Your task to perform on an android device: What's the news in Chile? Image 0: 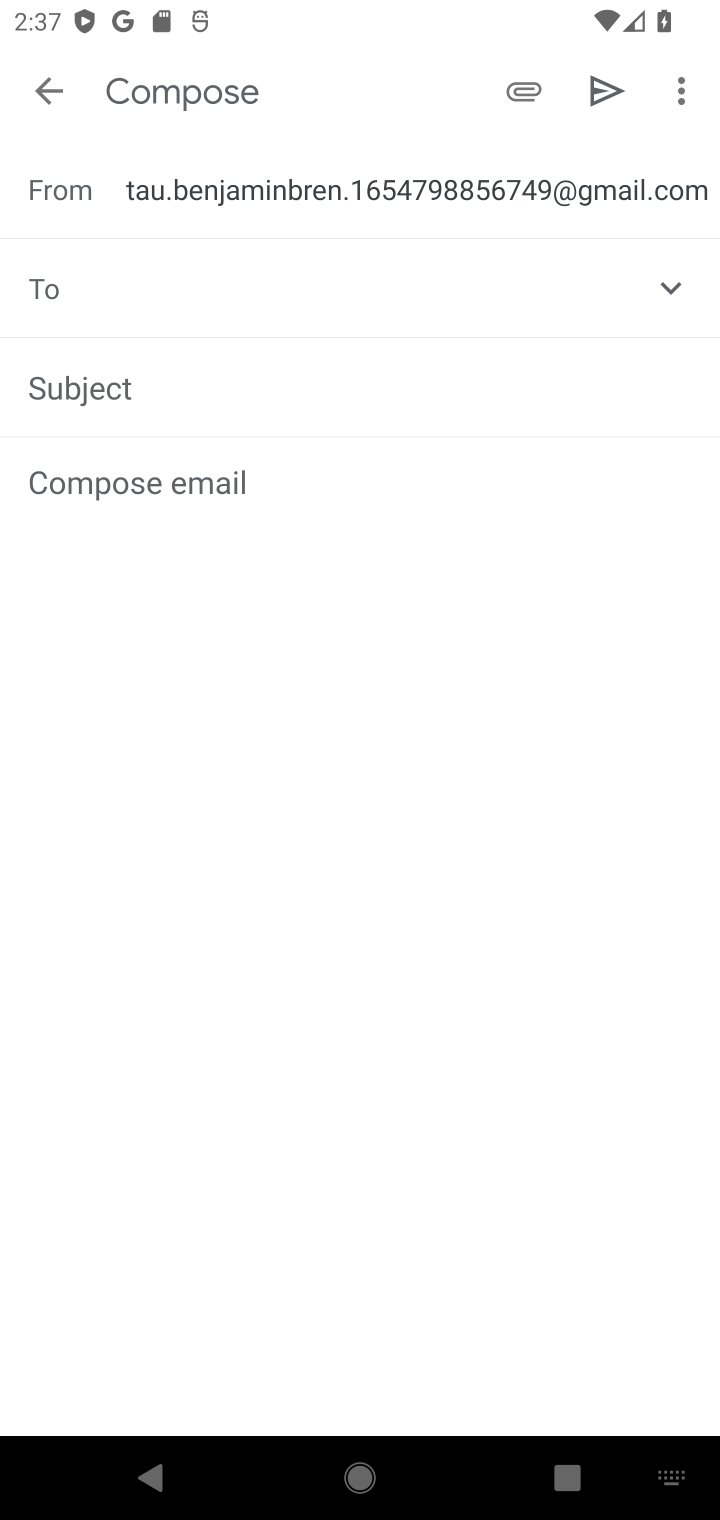
Step 0: press home button
Your task to perform on an android device: What's the news in Chile? Image 1: 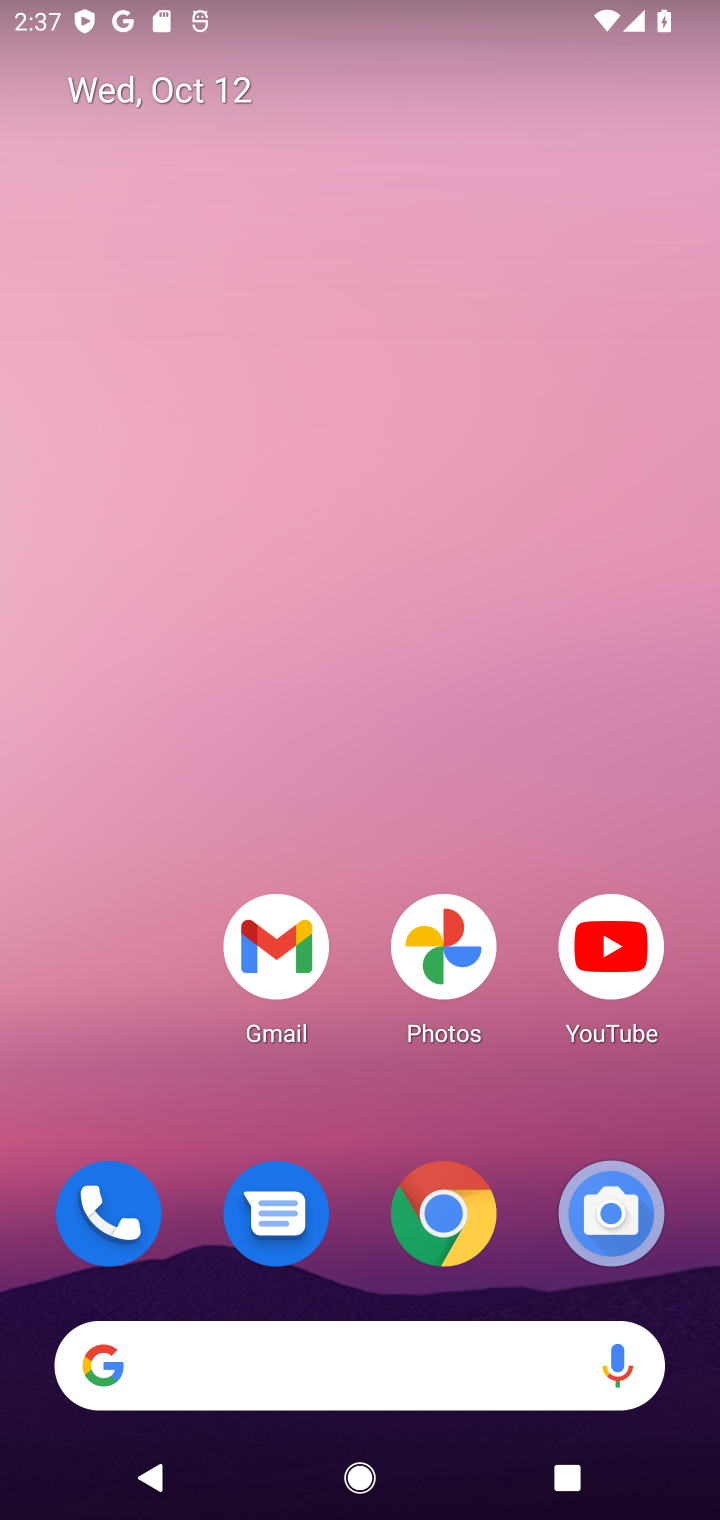
Step 1: click (340, 1384)
Your task to perform on an android device: What's the news in Chile? Image 2: 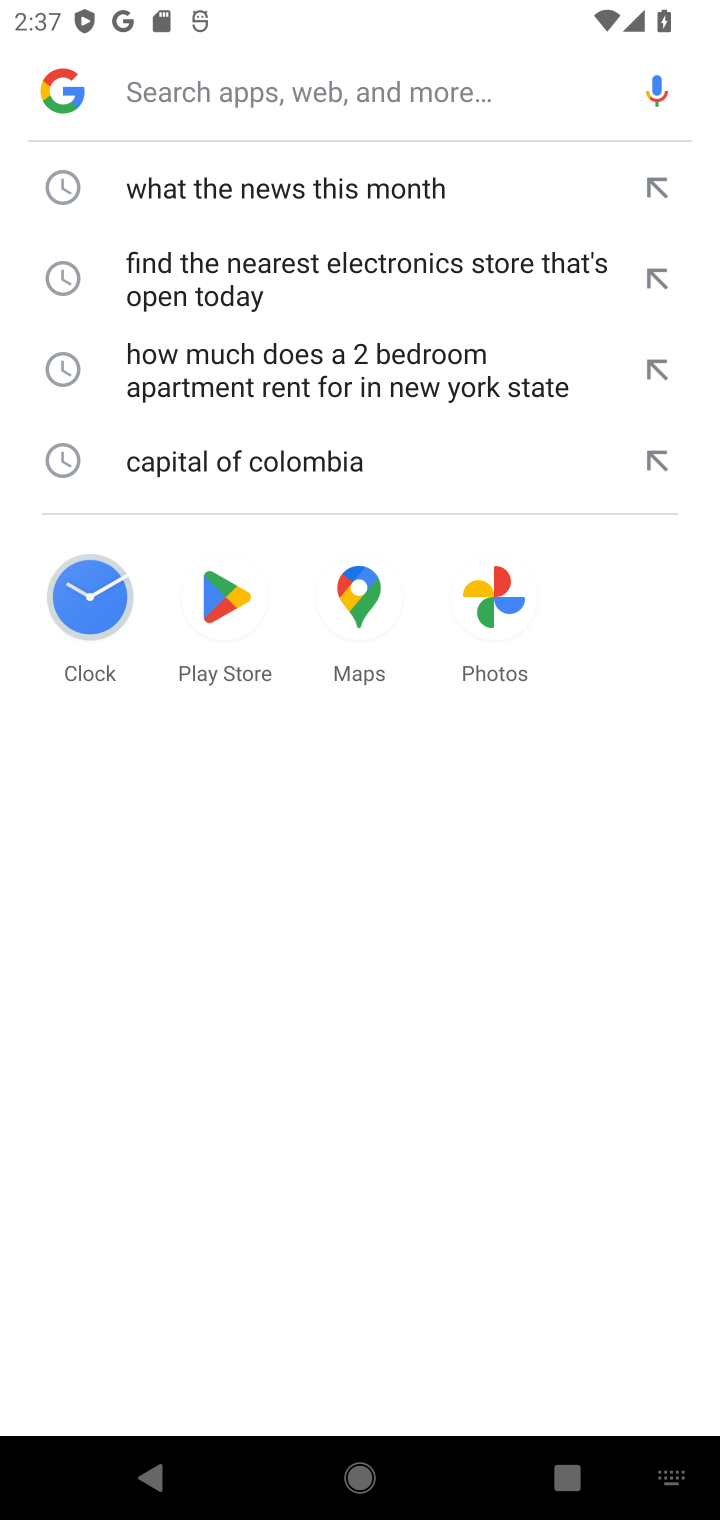
Step 2: click (230, 100)
Your task to perform on an android device: What's the news in Chile? Image 3: 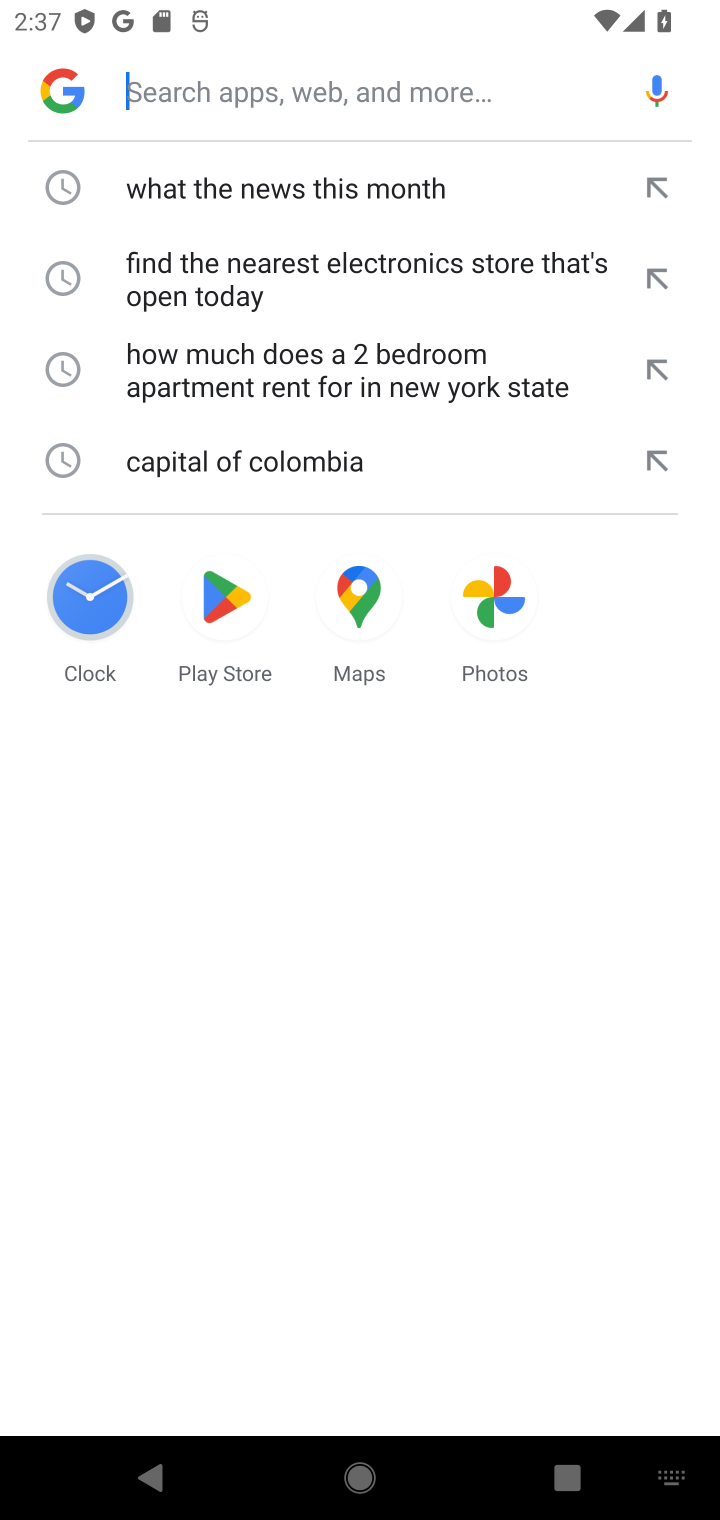
Step 3: type "What's the news in Chile?"
Your task to perform on an android device: What's the news in Chile? Image 4: 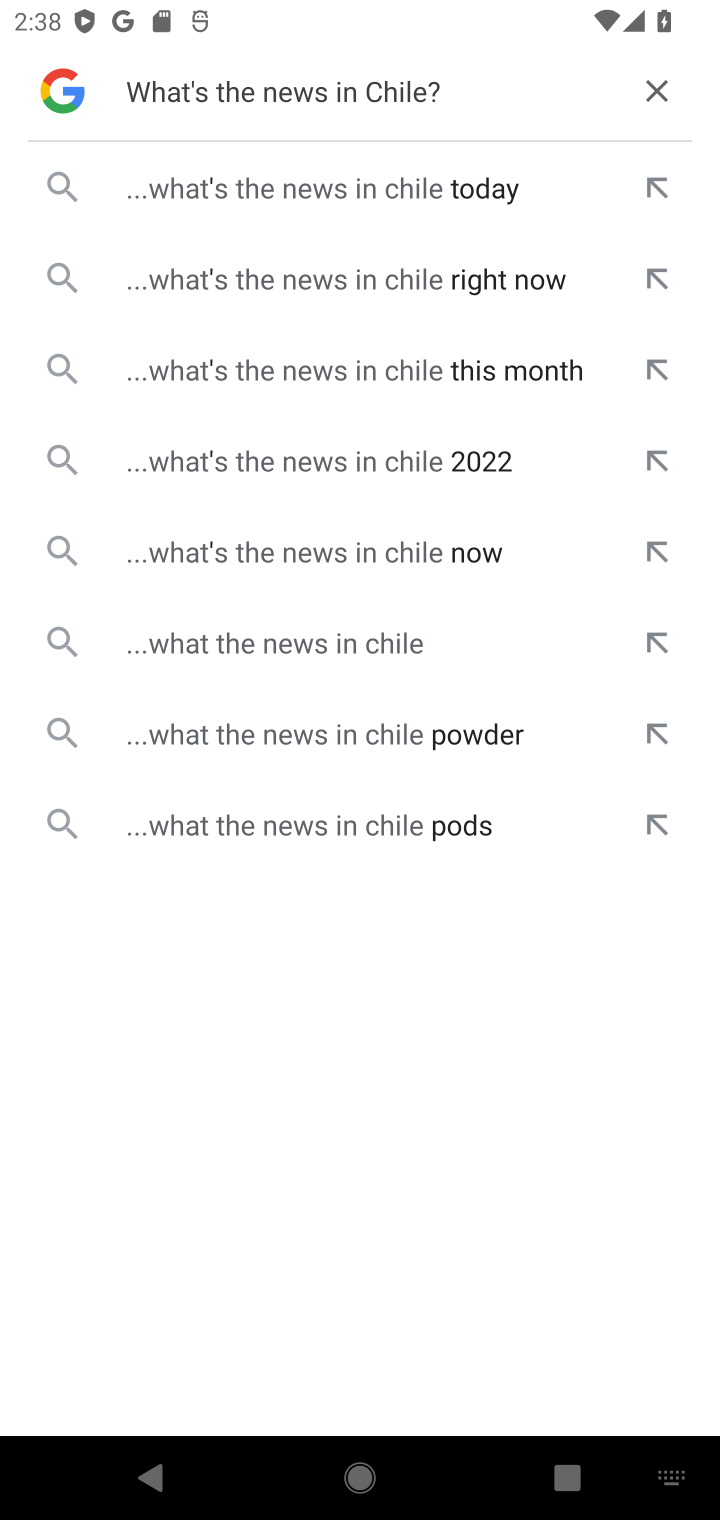
Step 4: click (411, 186)
Your task to perform on an android device: What's the news in Chile? Image 5: 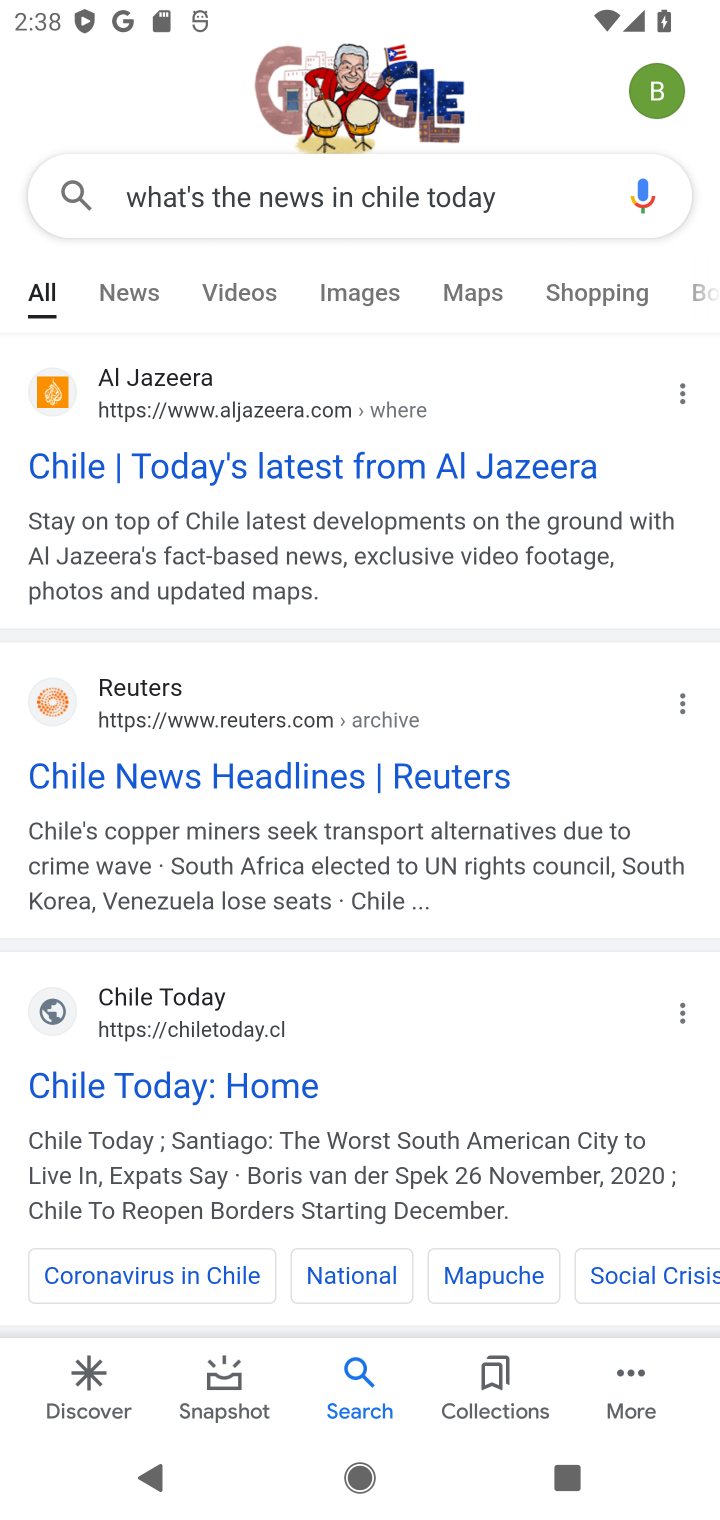
Step 5: click (239, 446)
Your task to perform on an android device: What's the news in Chile? Image 6: 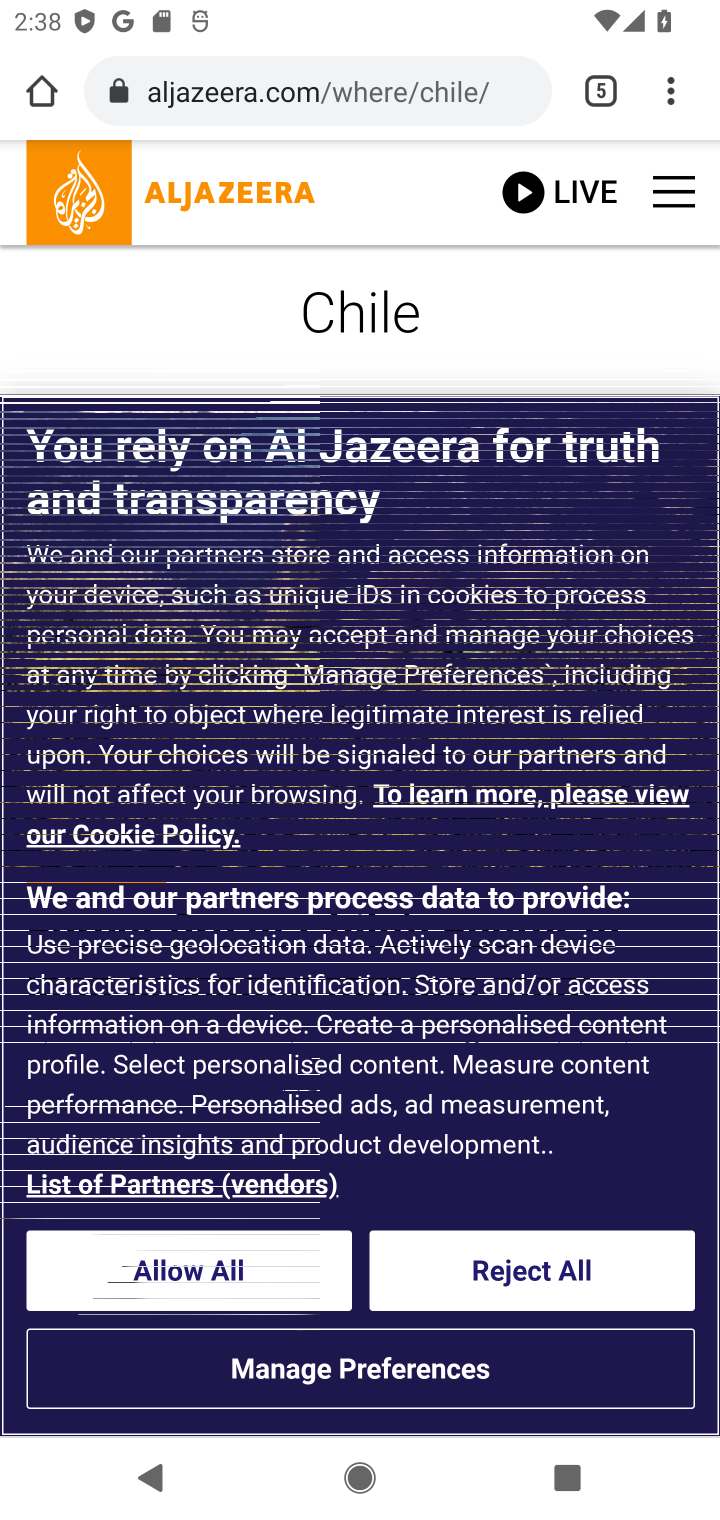
Step 6: task complete